Your task to perform on an android device: When is my next appointment? Image 0: 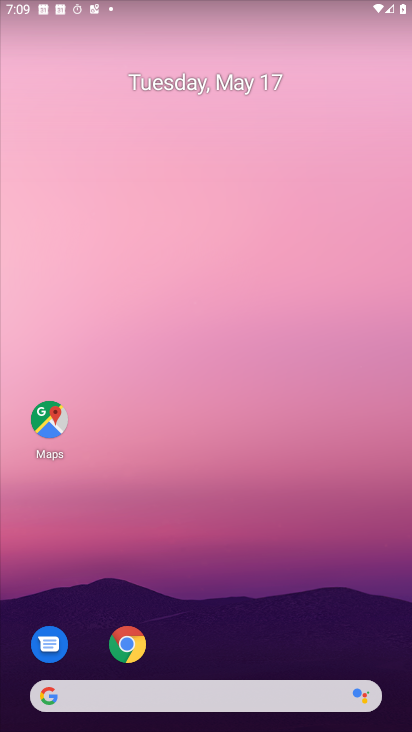
Step 0: drag from (358, 637) to (295, 54)
Your task to perform on an android device: When is my next appointment? Image 1: 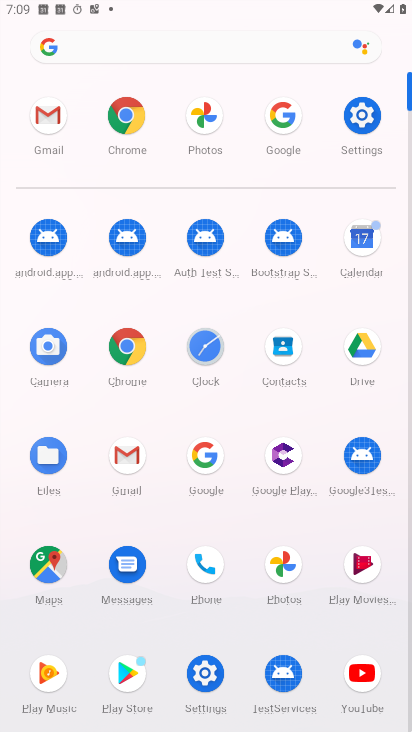
Step 1: click (368, 246)
Your task to perform on an android device: When is my next appointment? Image 2: 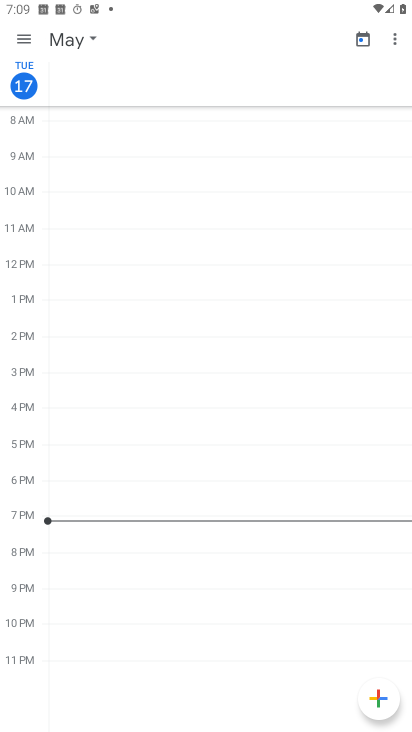
Step 2: click (72, 45)
Your task to perform on an android device: When is my next appointment? Image 3: 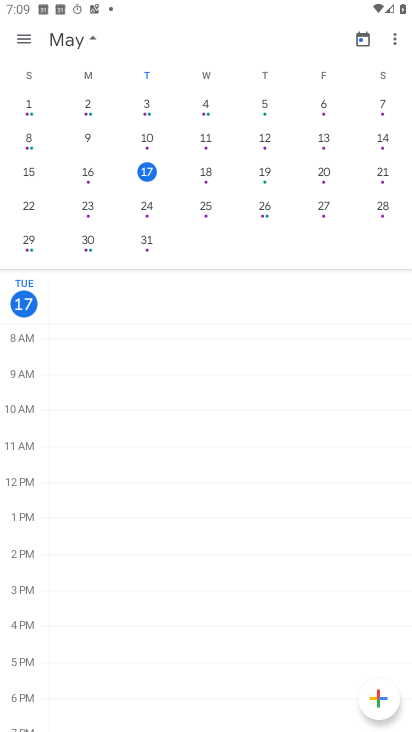
Step 3: click (25, 32)
Your task to perform on an android device: When is my next appointment? Image 4: 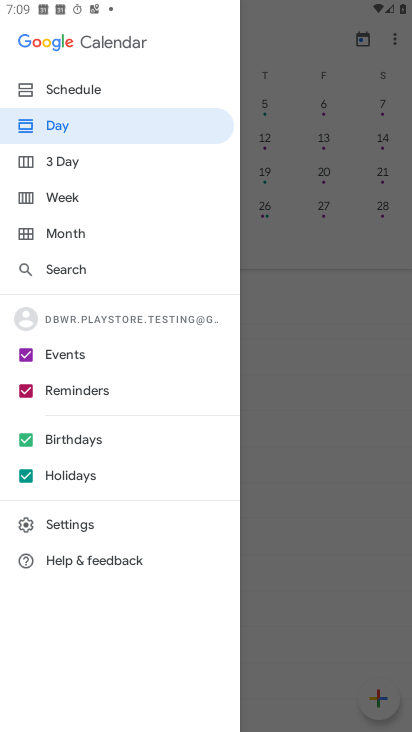
Step 4: click (75, 95)
Your task to perform on an android device: When is my next appointment? Image 5: 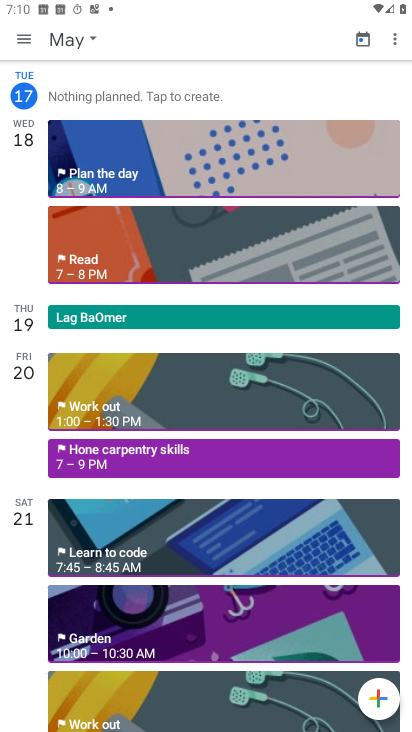
Step 5: task complete